Your task to perform on an android device: make emails show in primary in the gmail app Image 0: 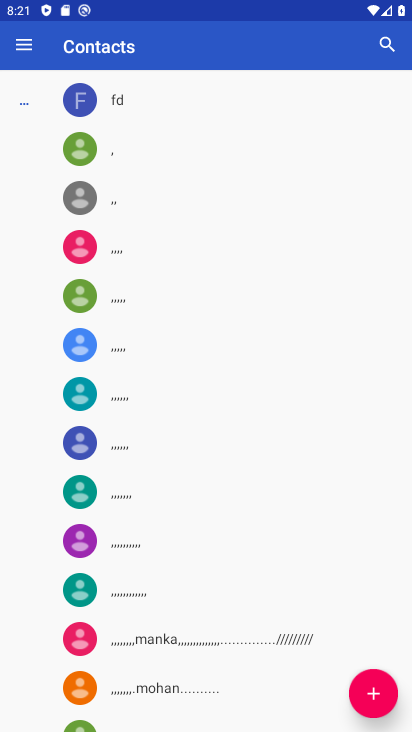
Step 0: press home button
Your task to perform on an android device: make emails show in primary in the gmail app Image 1: 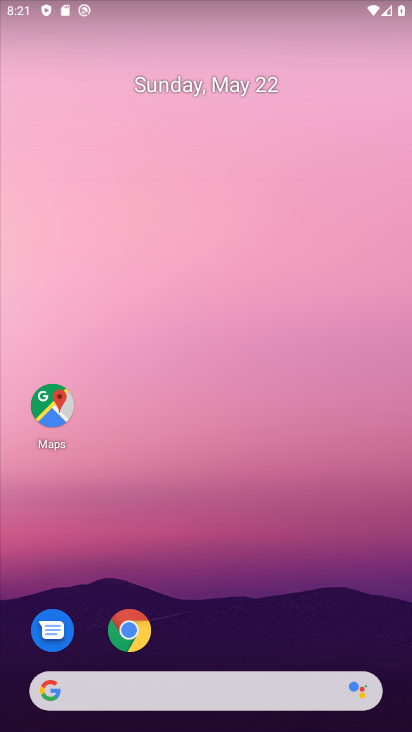
Step 1: drag from (239, 609) to (296, 51)
Your task to perform on an android device: make emails show in primary in the gmail app Image 2: 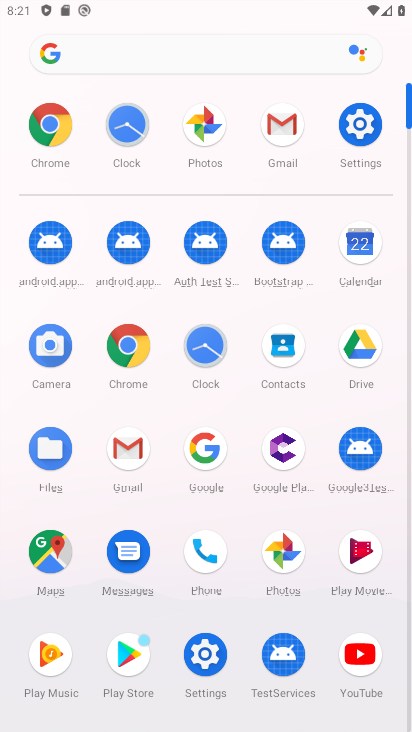
Step 2: click (278, 134)
Your task to perform on an android device: make emails show in primary in the gmail app Image 3: 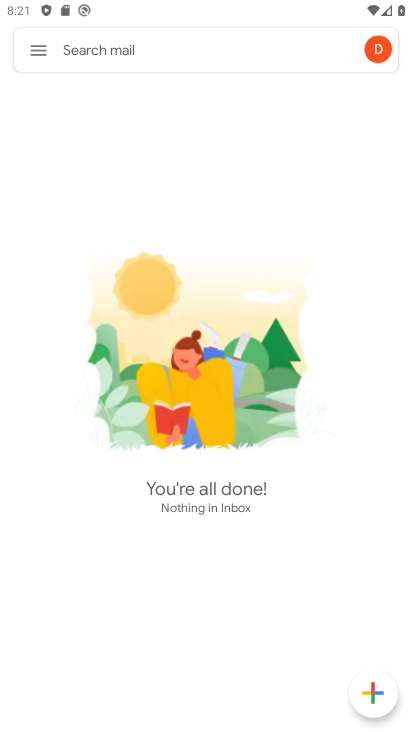
Step 3: click (39, 45)
Your task to perform on an android device: make emails show in primary in the gmail app Image 4: 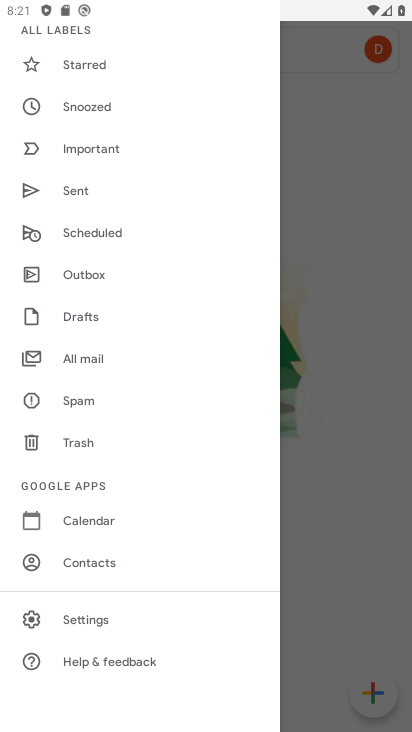
Step 4: click (97, 606)
Your task to perform on an android device: make emails show in primary in the gmail app Image 5: 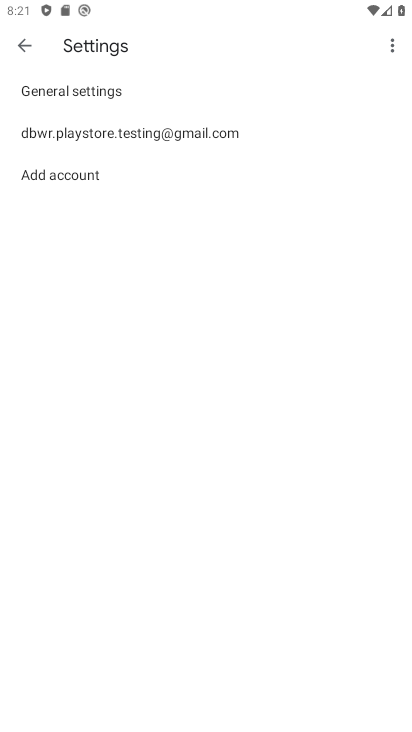
Step 5: click (184, 125)
Your task to perform on an android device: make emails show in primary in the gmail app Image 6: 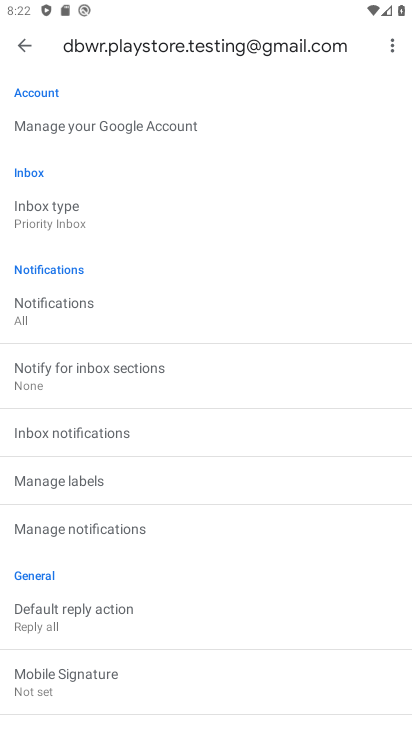
Step 6: click (115, 234)
Your task to perform on an android device: make emails show in primary in the gmail app Image 7: 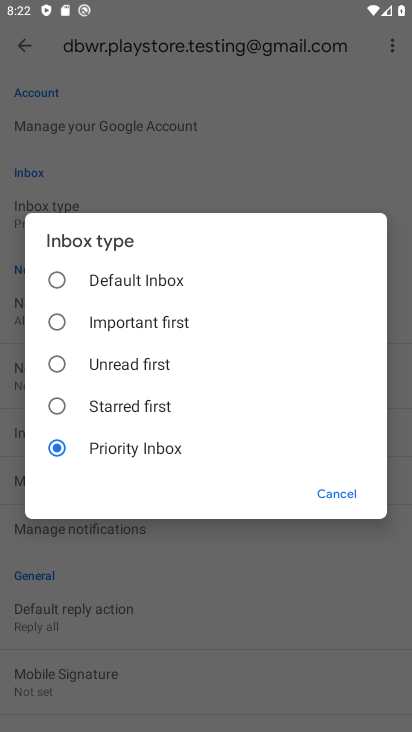
Step 7: task complete